Your task to perform on an android device: Open accessibility settings Image 0: 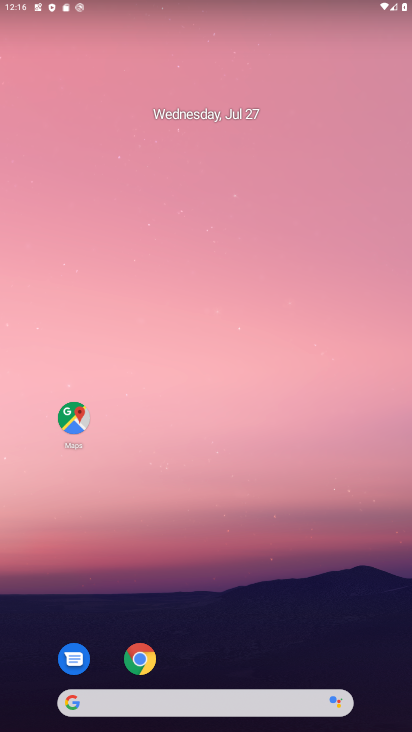
Step 0: drag from (207, 574) to (242, 114)
Your task to perform on an android device: Open accessibility settings Image 1: 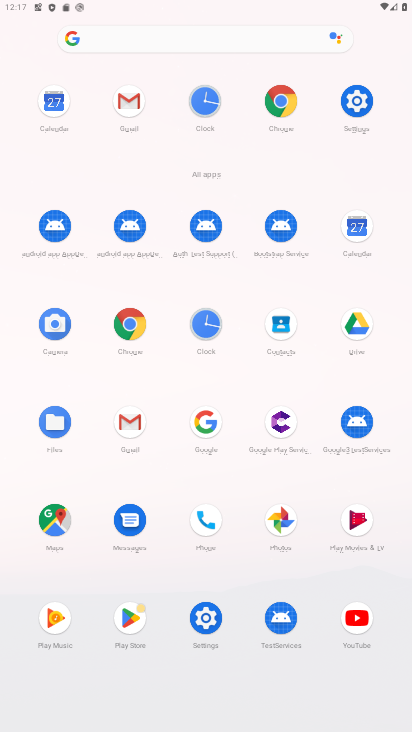
Step 1: click (212, 616)
Your task to perform on an android device: Open accessibility settings Image 2: 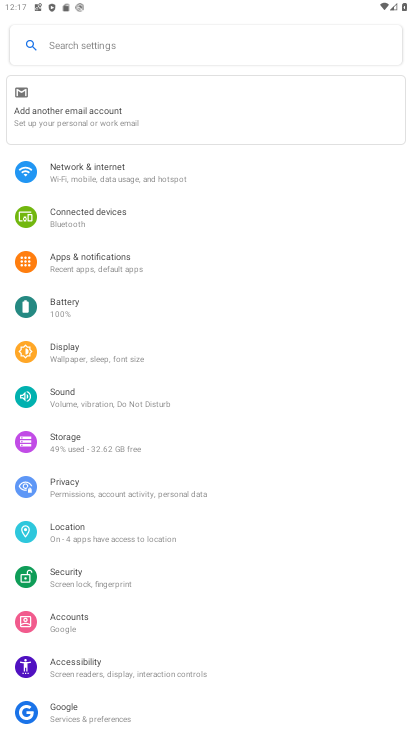
Step 2: click (100, 662)
Your task to perform on an android device: Open accessibility settings Image 3: 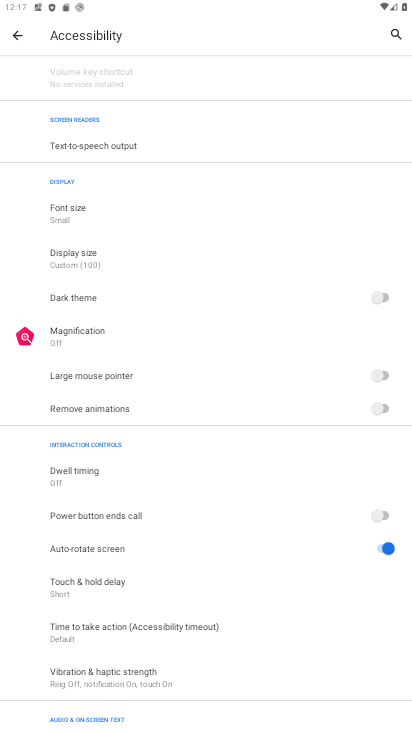
Step 3: task complete